Your task to perform on an android device: turn off wifi Image 0: 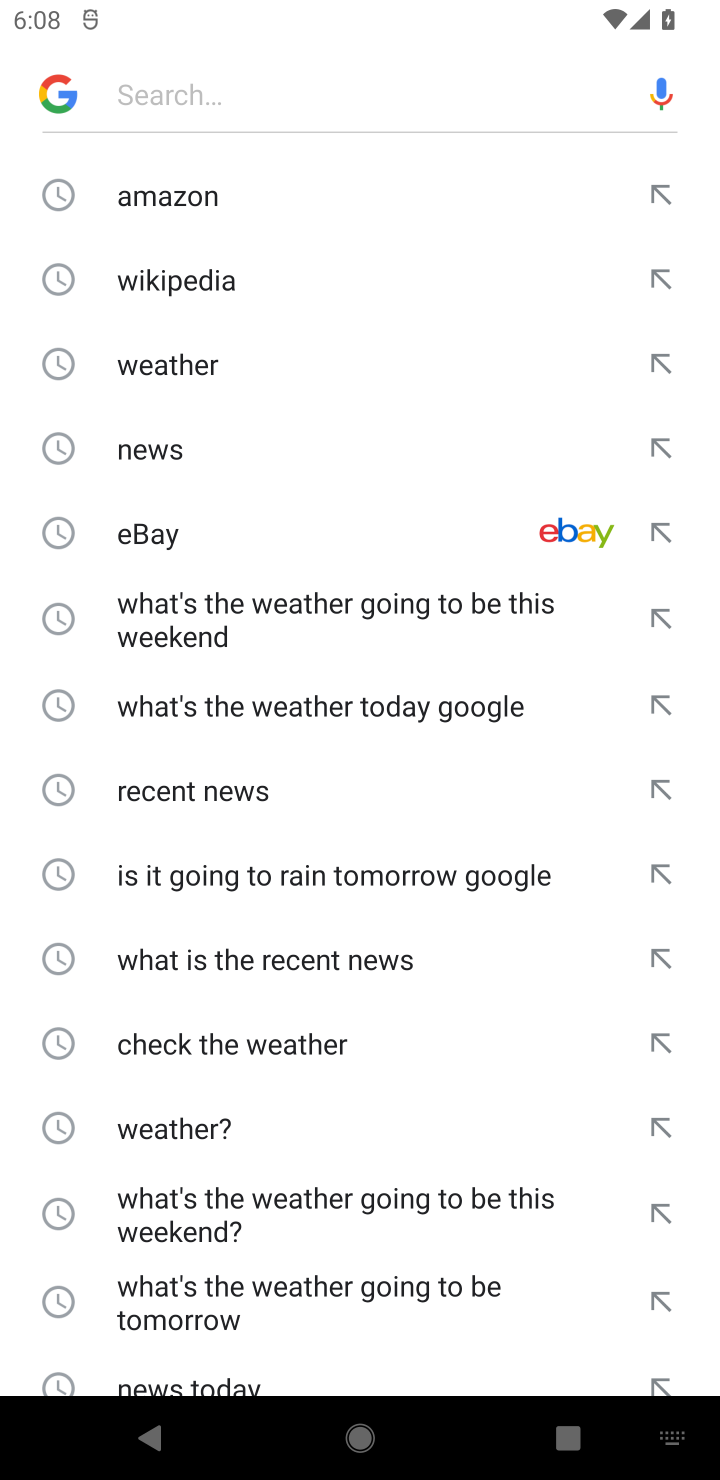
Step 0: drag from (281, 3) to (315, 1016)
Your task to perform on an android device: turn off wifi Image 1: 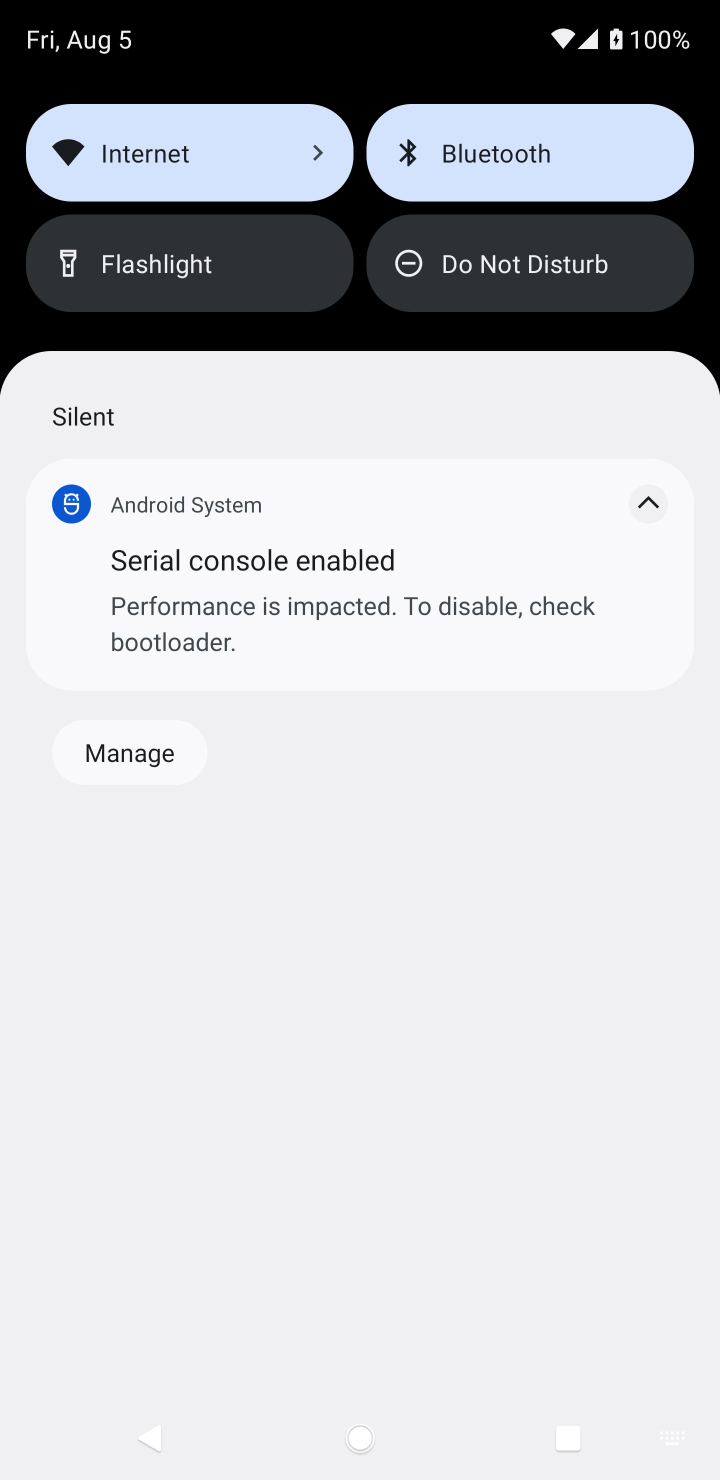
Step 1: click (321, 152)
Your task to perform on an android device: turn off wifi Image 2: 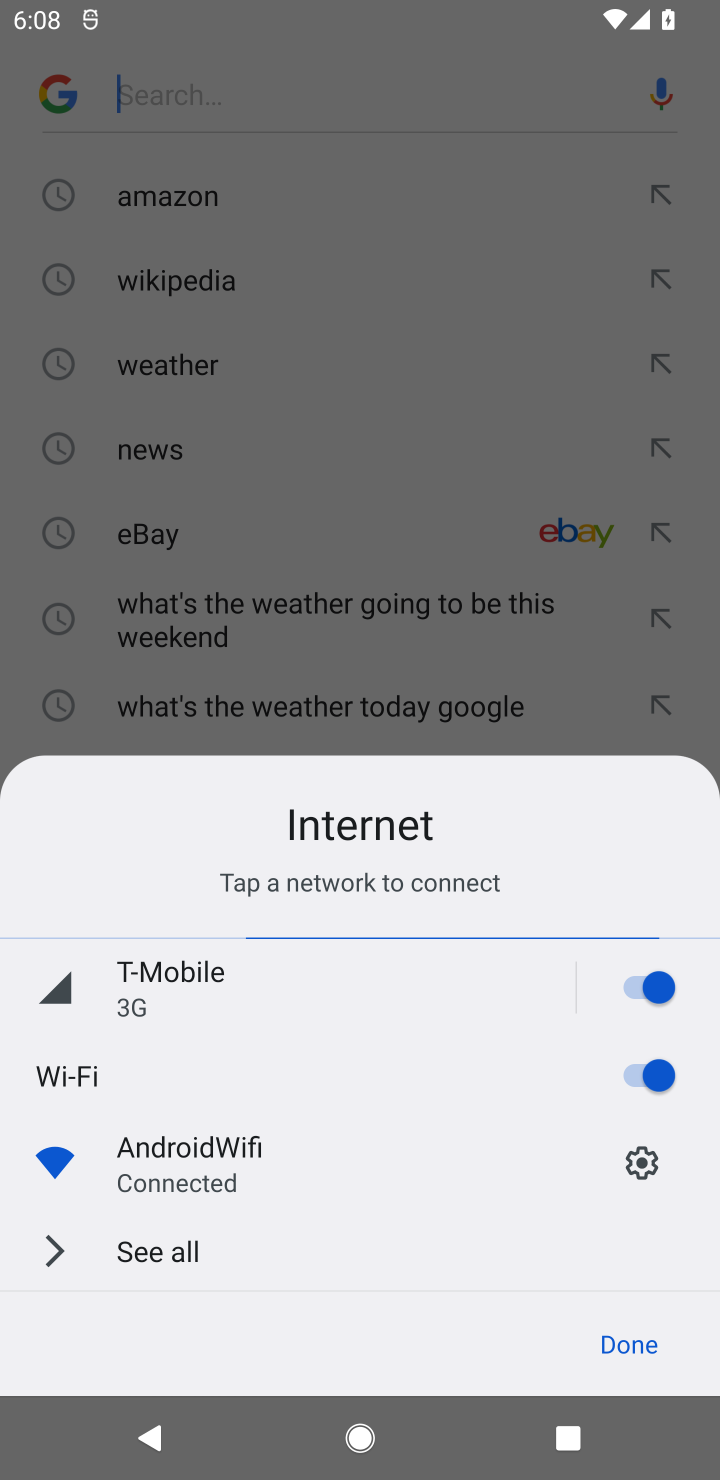
Step 2: click (653, 1076)
Your task to perform on an android device: turn off wifi Image 3: 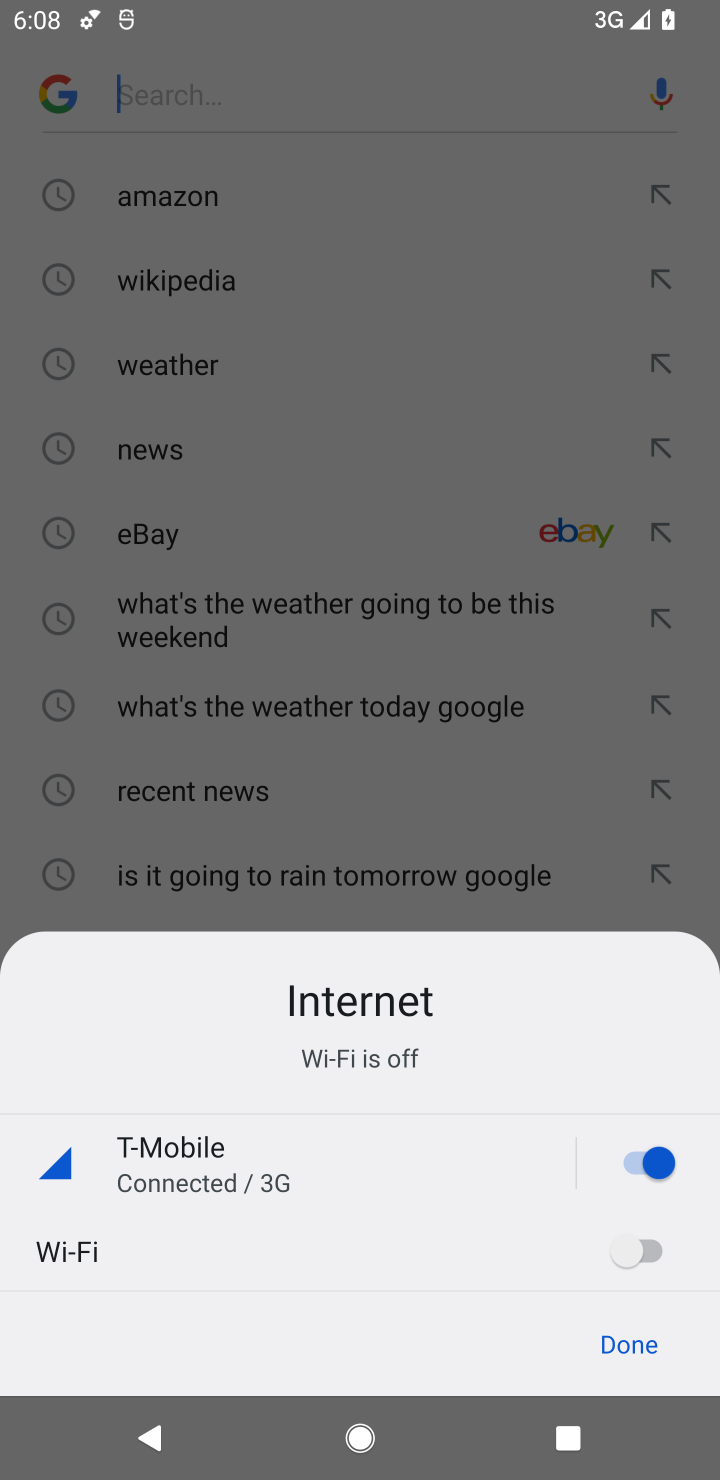
Step 3: task complete